Your task to perform on an android device: What's the weather? Image 0: 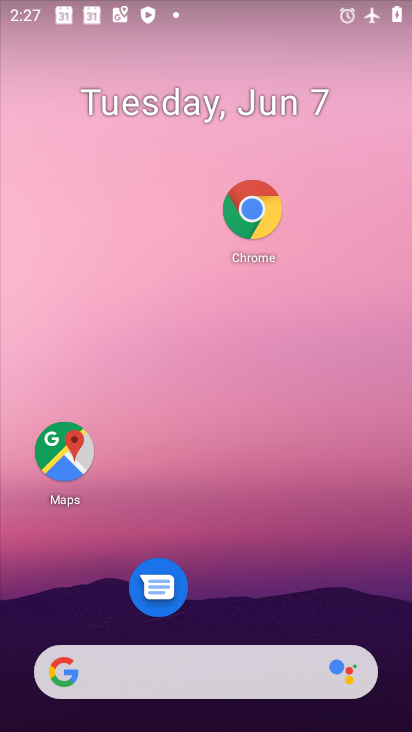
Step 0: drag from (239, 561) to (251, 171)
Your task to perform on an android device: What's the weather? Image 1: 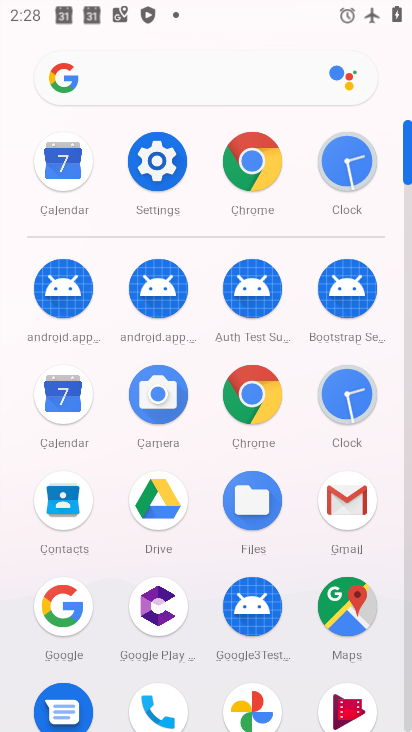
Step 1: click (65, 607)
Your task to perform on an android device: What's the weather? Image 2: 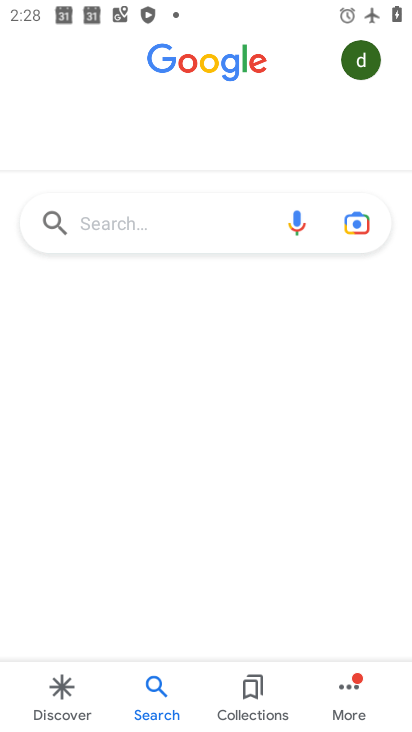
Step 2: click (77, 685)
Your task to perform on an android device: What's the weather? Image 3: 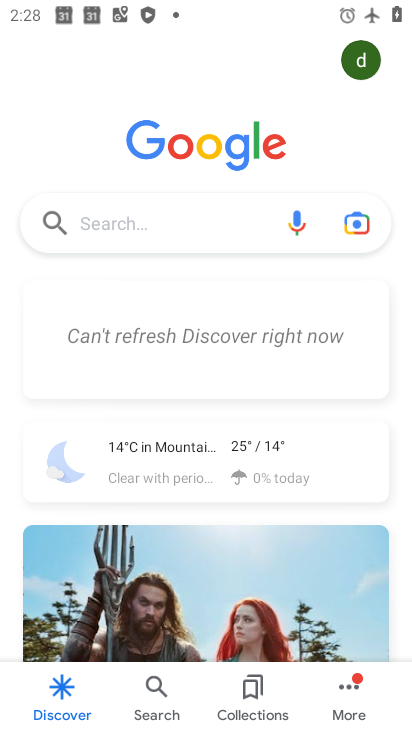
Step 3: task complete